Your task to perform on an android device: check battery use Image 0: 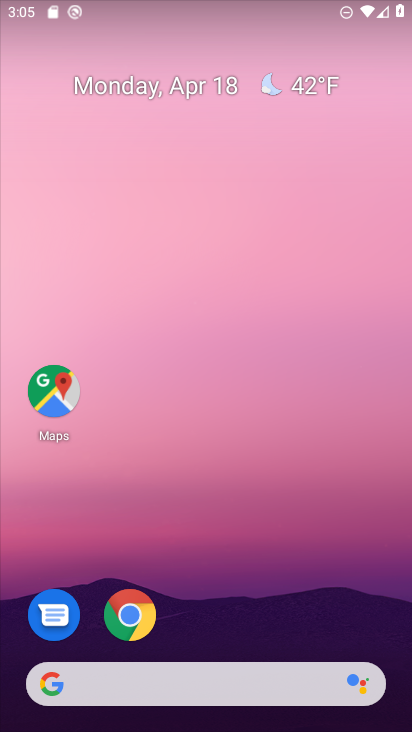
Step 0: drag from (264, 264) to (282, 3)
Your task to perform on an android device: check battery use Image 1: 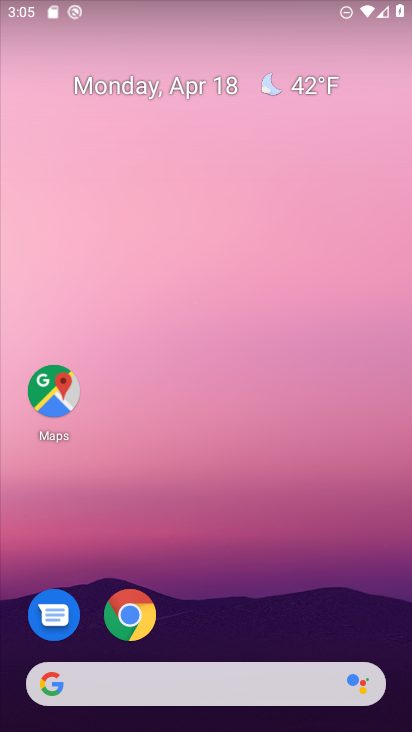
Step 1: drag from (287, 667) to (343, 9)
Your task to perform on an android device: check battery use Image 2: 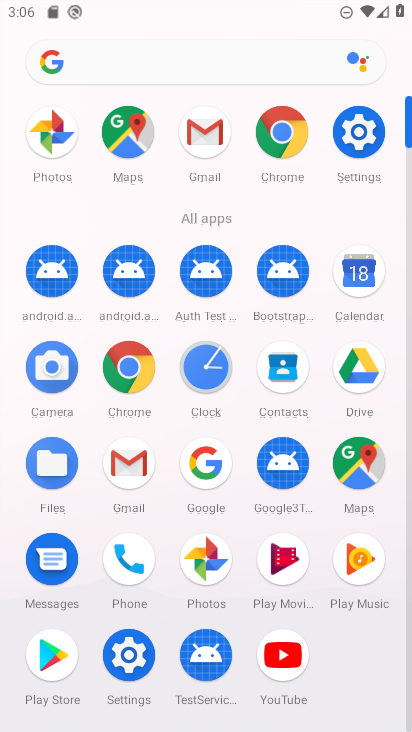
Step 2: click (368, 146)
Your task to perform on an android device: check battery use Image 3: 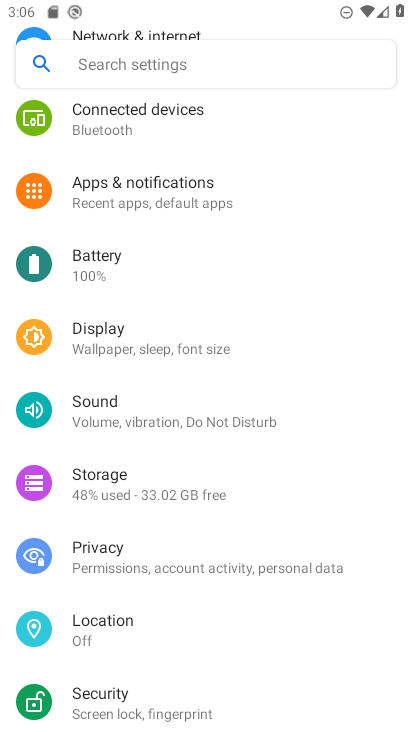
Step 3: click (220, 280)
Your task to perform on an android device: check battery use Image 4: 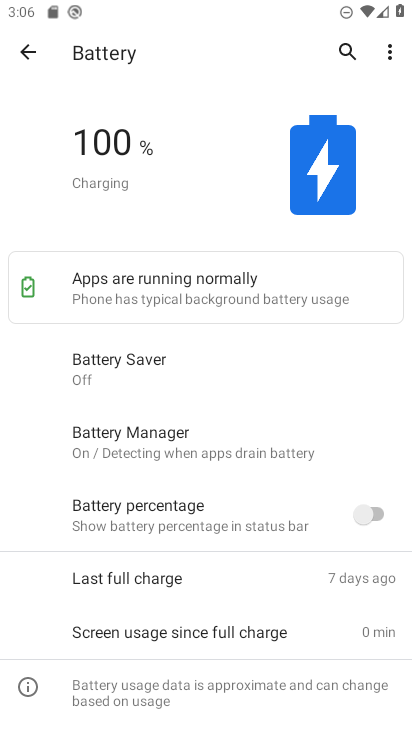
Step 4: click (389, 54)
Your task to perform on an android device: check battery use Image 5: 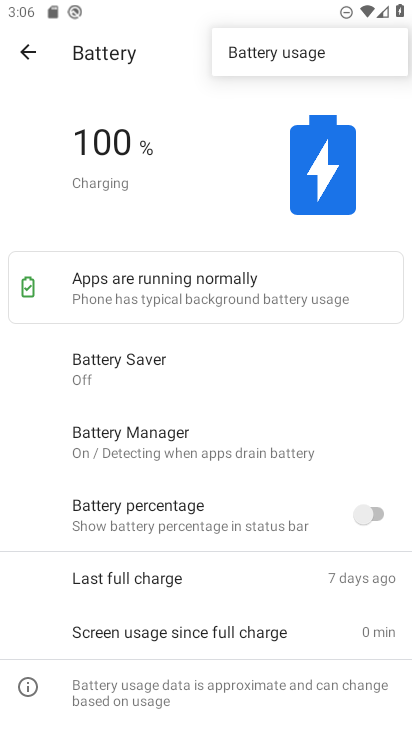
Step 5: click (354, 50)
Your task to perform on an android device: check battery use Image 6: 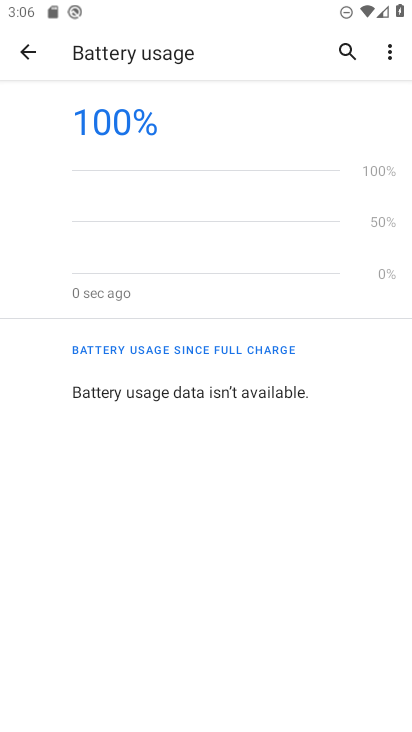
Step 6: task complete